Your task to perform on an android device: turn vacation reply on in the gmail app Image 0: 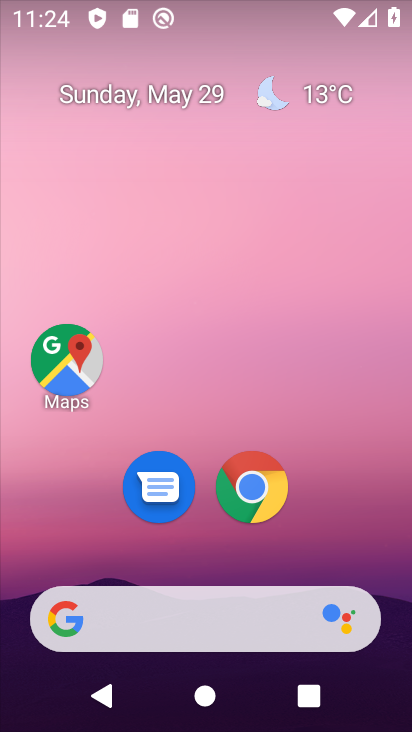
Step 0: drag from (317, 542) to (278, 109)
Your task to perform on an android device: turn vacation reply on in the gmail app Image 1: 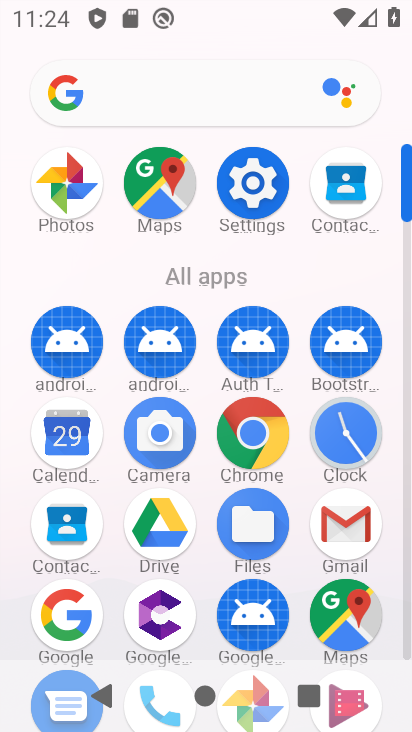
Step 1: click (340, 538)
Your task to perform on an android device: turn vacation reply on in the gmail app Image 2: 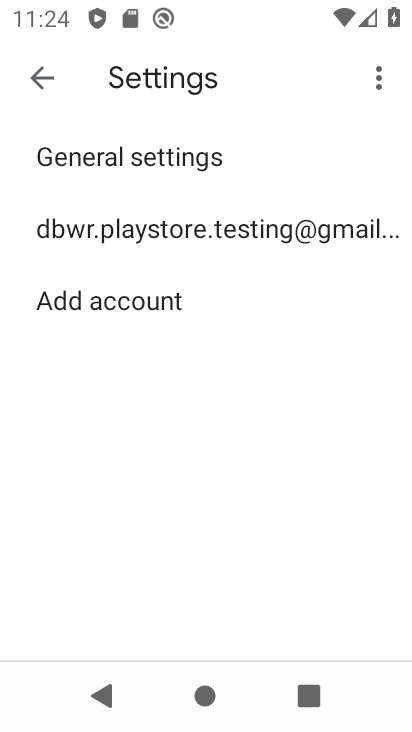
Step 2: click (66, 222)
Your task to perform on an android device: turn vacation reply on in the gmail app Image 3: 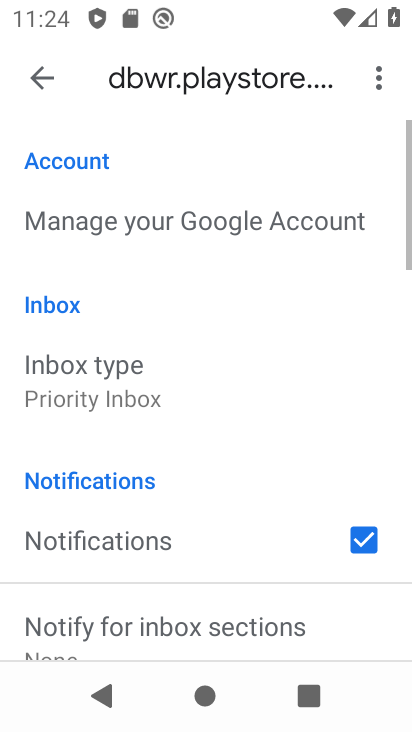
Step 3: drag from (145, 581) to (130, 176)
Your task to perform on an android device: turn vacation reply on in the gmail app Image 4: 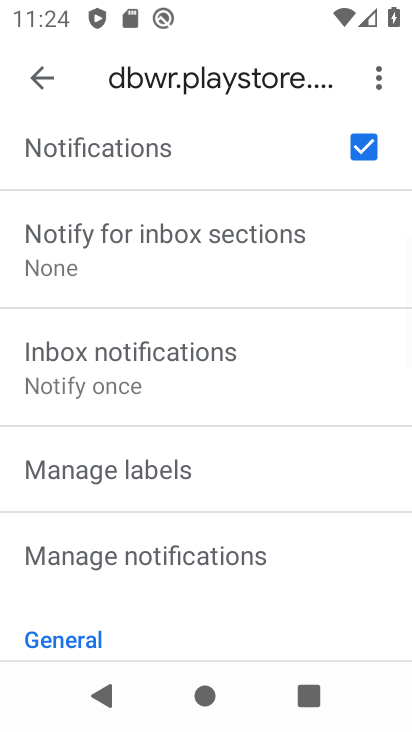
Step 4: drag from (140, 530) to (85, 231)
Your task to perform on an android device: turn vacation reply on in the gmail app Image 5: 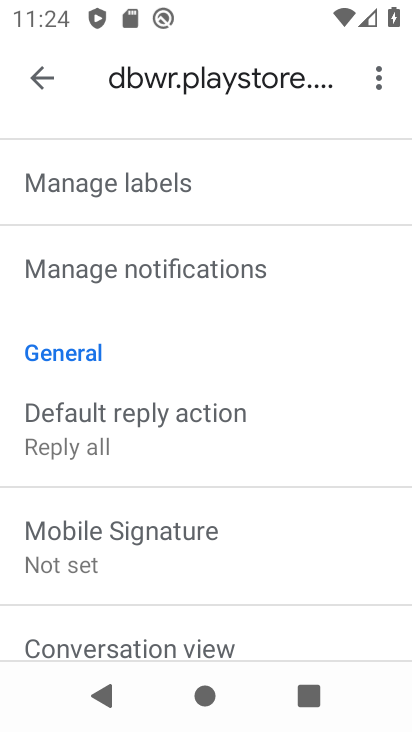
Step 5: drag from (159, 592) to (146, 293)
Your task to perform on an android device: turn vacation reply on in the gmail app Image 6: 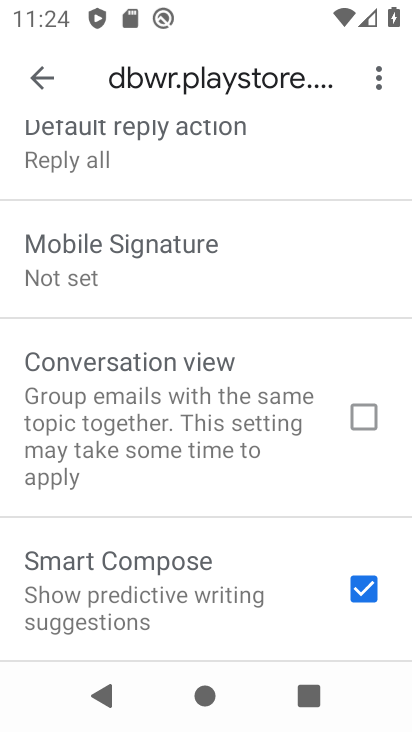
Step 6: drag from (151, 665) to (123, 294)
Your task to perform on an android device: turn vacation reply on in the gmail app Image 7: 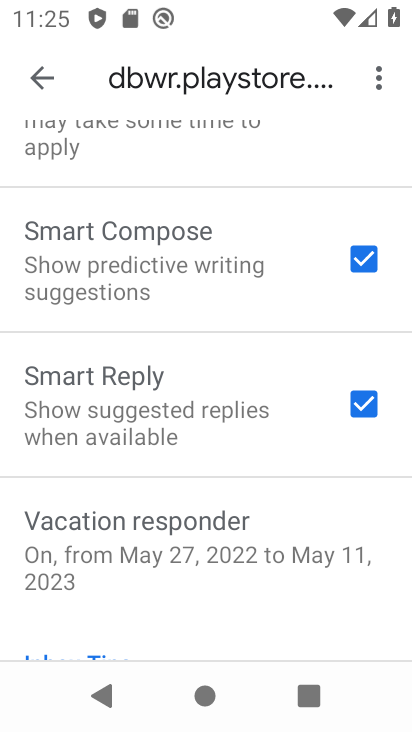
Step 7: click (110, 556)
Your task to perform on an android device: turn vacation reply on in the gmail app Image 8: 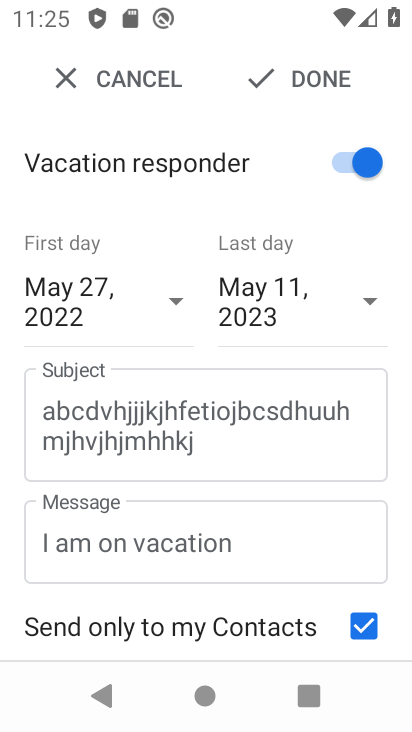
Step 8: task complete